Your task to perform on an android device: change notifications settings Image 0: 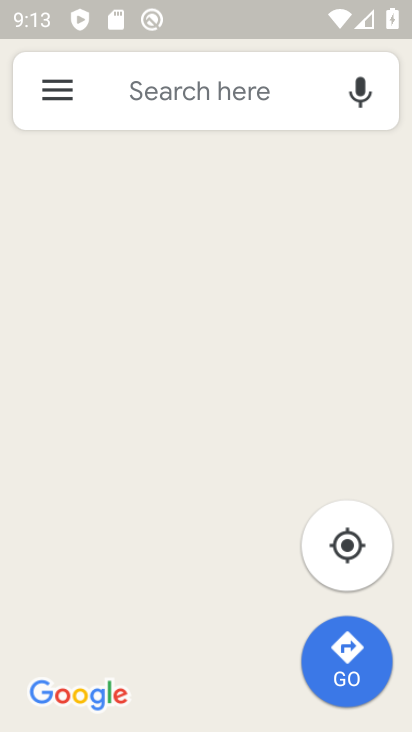
Step 0: press home button
Your task to perform on an android device: change notifications settings Image 1: 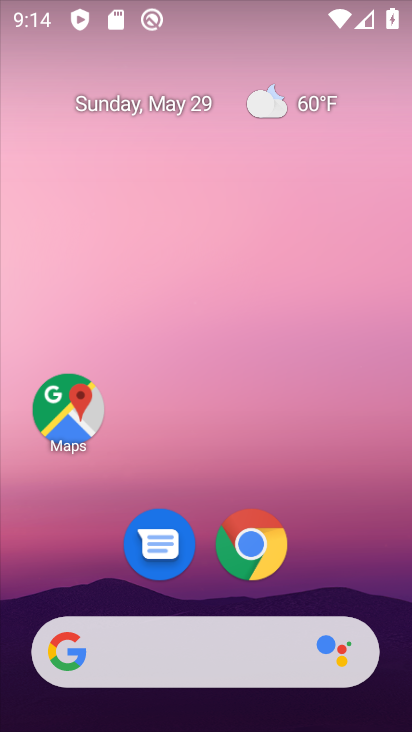
Step 1: drag from (321, 558) to (359, 117)
Your task to perform on an android device: change notifications settings Image 2: 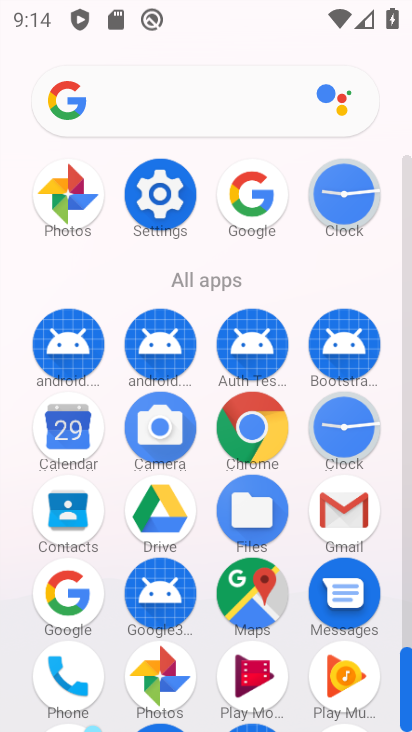
Step 2: click (164, 195)
Your task to perform on an android device: change notifications settings Image 3: 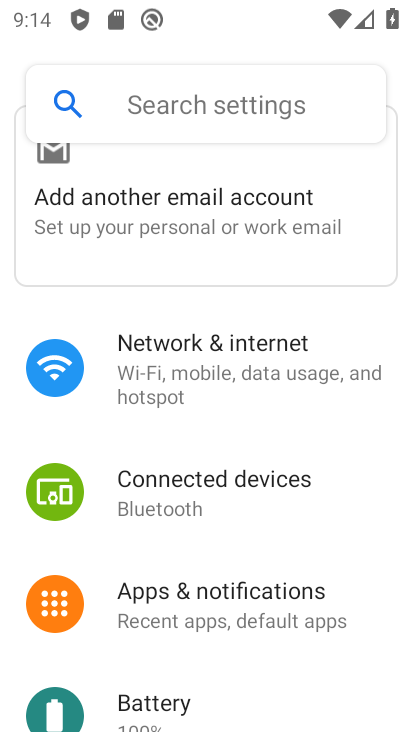
Step 3: click (231, 609)
Your task to perform on an android device: change notifications settings Image 4: 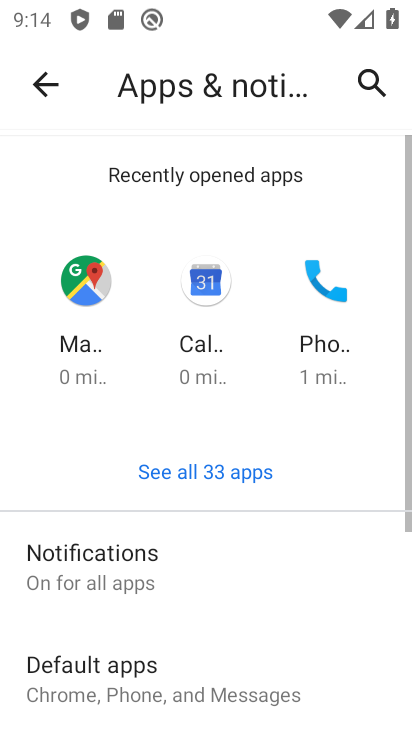
Step 4: click (104, 560)
Your task to perform on an android device: change notifications settings Image 5: 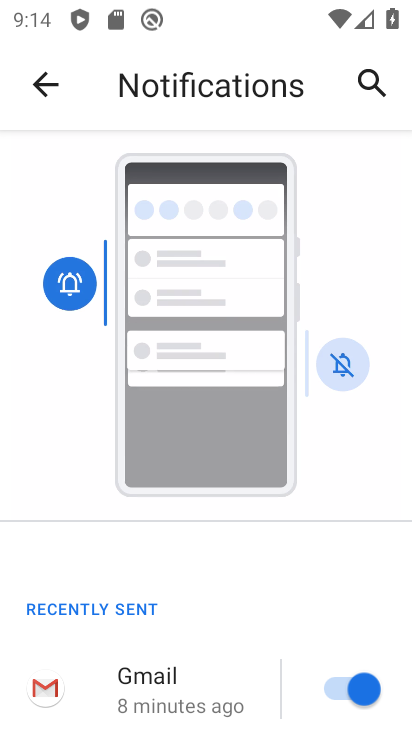
Step 5: drag from (307, 595) to (329, 30)
Your task to perform on an android device: change notifications settings Image 6: 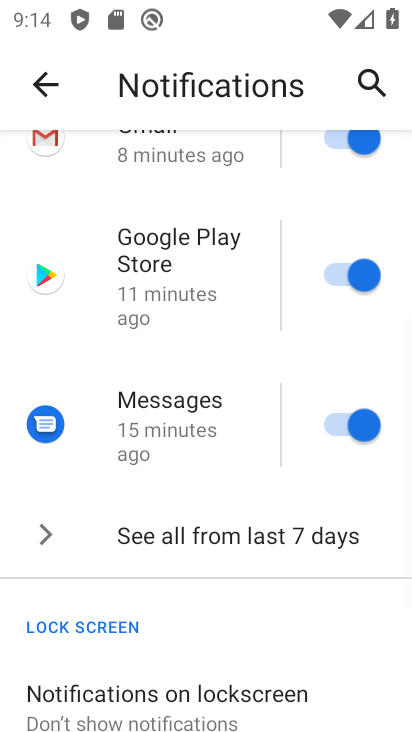
Step 6: drag from (243, 560) to (286, 72)
Your task to perform on an android device: change notifications settings Image 7: 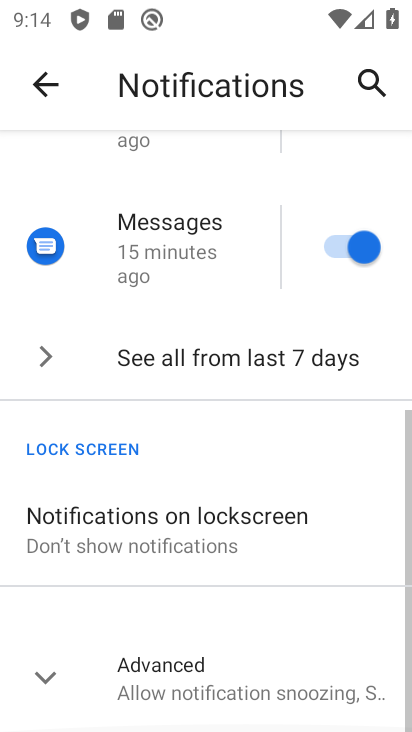
Step 7: click (209, 671)
Your task to perform on an android device: change notifications settings Image 8: 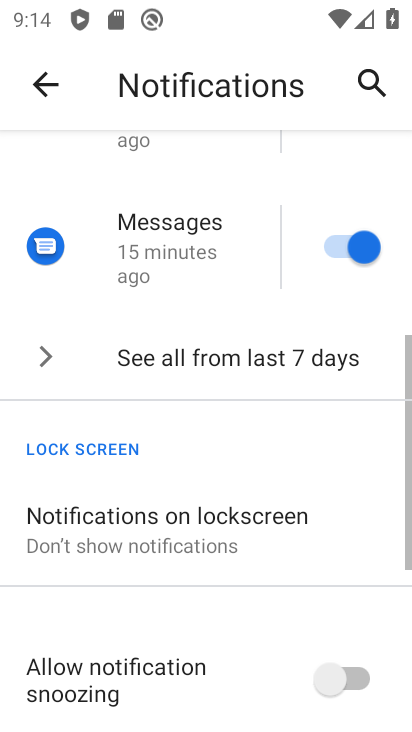
Step 8: drag from (262, 631) to (331, 209)
Your task to perform on an android device: change notifications settings Image 9: 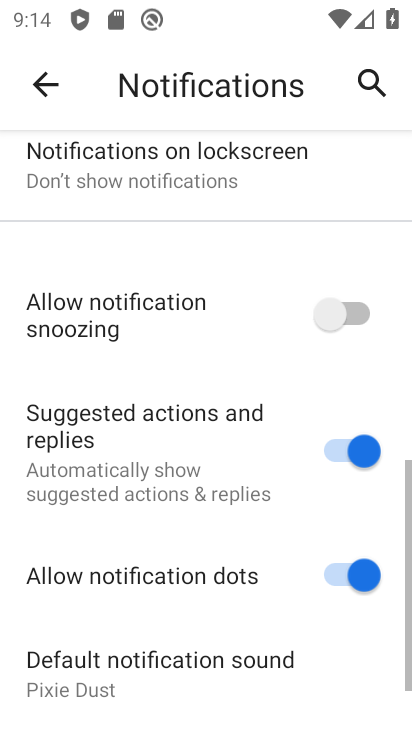
Step 9: drag from (221, 668) to (257, 397)
Your task to perform on an android device: change notifications settings Image 10: 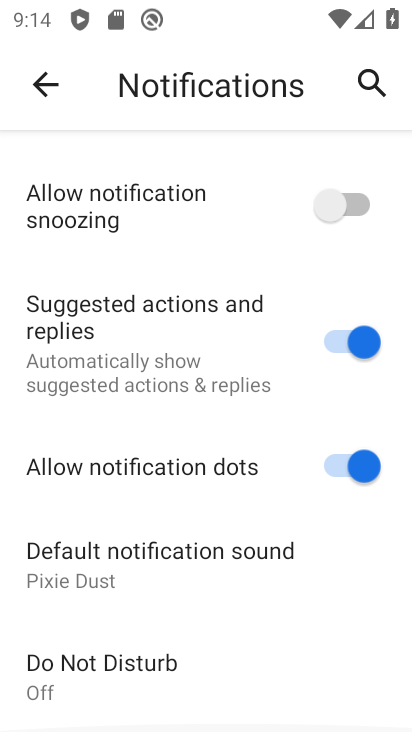
Step 10: click (332, 211)
Your task to perform on an android device: change notifications settings Image 11: 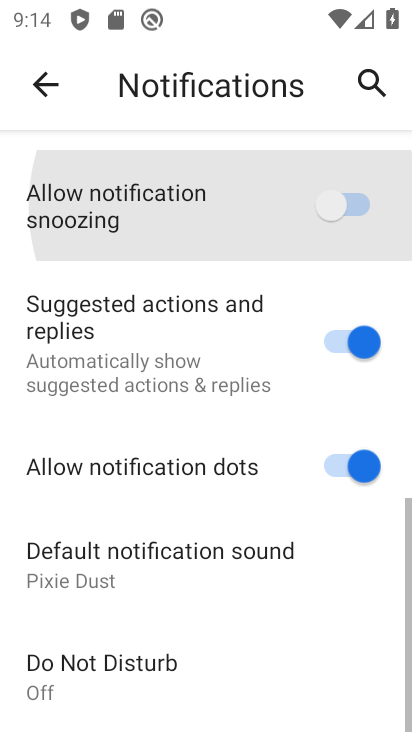
Step 11: click (353, 351)
Your task to perform on an android device: change notifications settings Image 12: 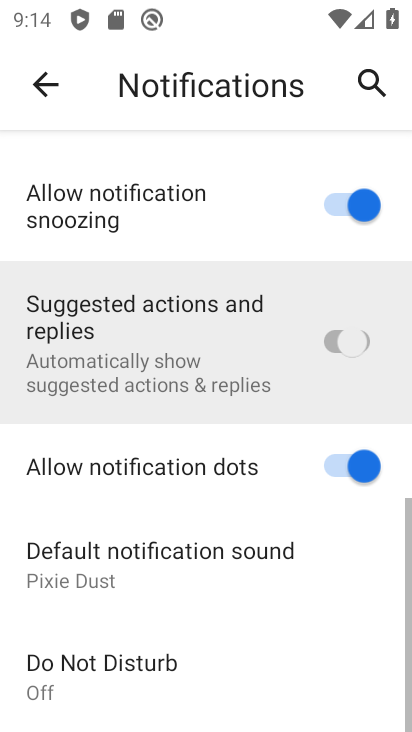
Step 12: click (363, 463)
Your task to perform on an android device: change notifications settings Image 13: 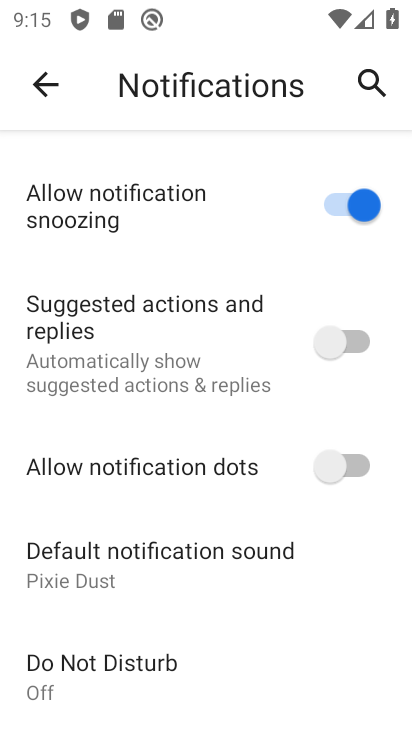
Step 13: task complete